Your task to perform on an android device: Go to Google Image 0: 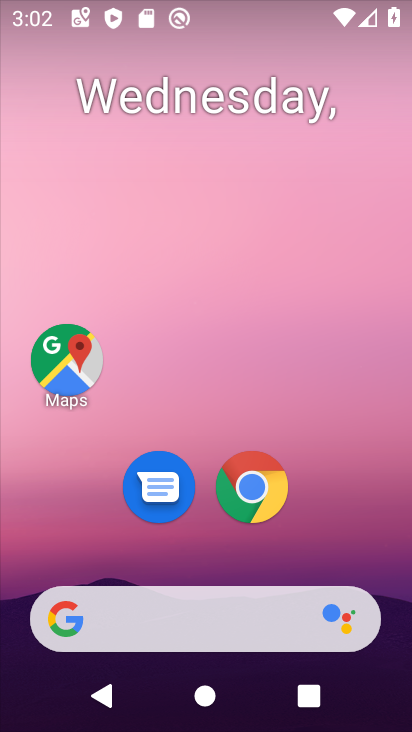
Step 0: click (197, 616)
Your task to perform on an android device: Go to Google Image 1: 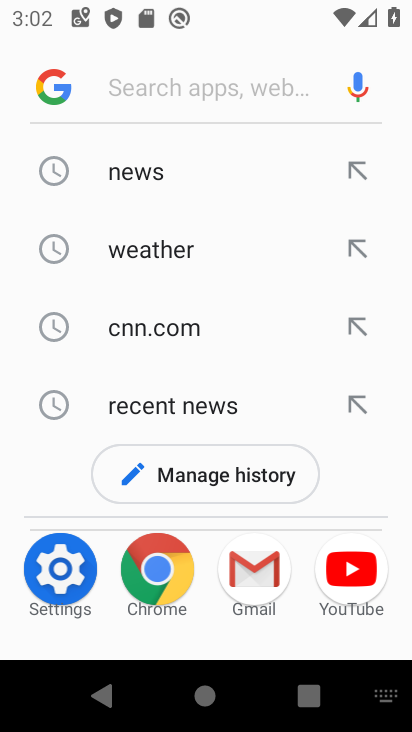
Step 1: click (52, 64)
Your task to perform on an android device: Go to Google Image 2: 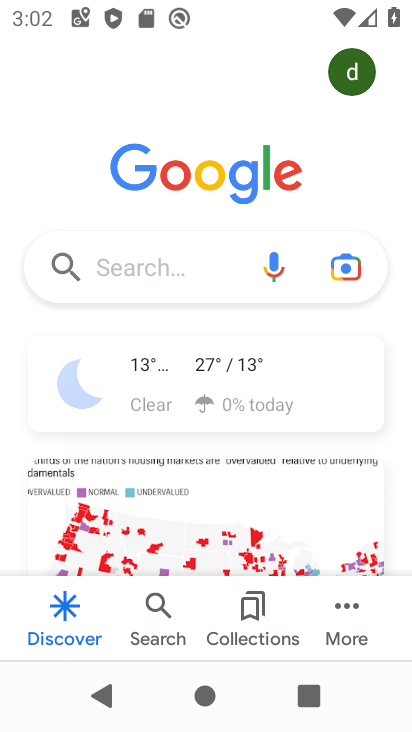
Step 2: task complete